Your task to perform on an android device: choose inbox layout in the gmail app Image 0: 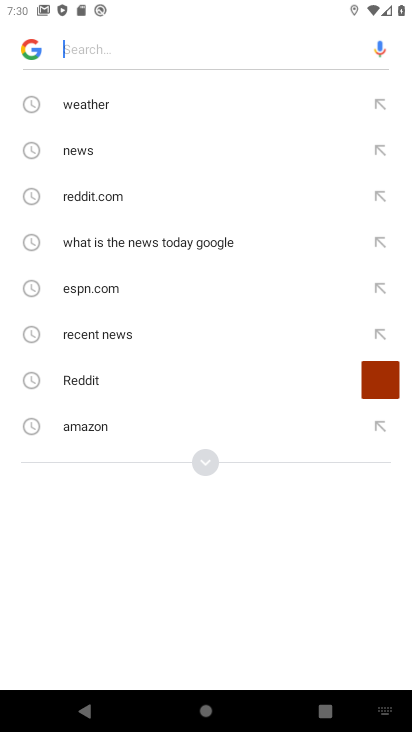
Step 0: press home button
Your task to perform on an android device: choose inbox layout in the gmail app Image 1: 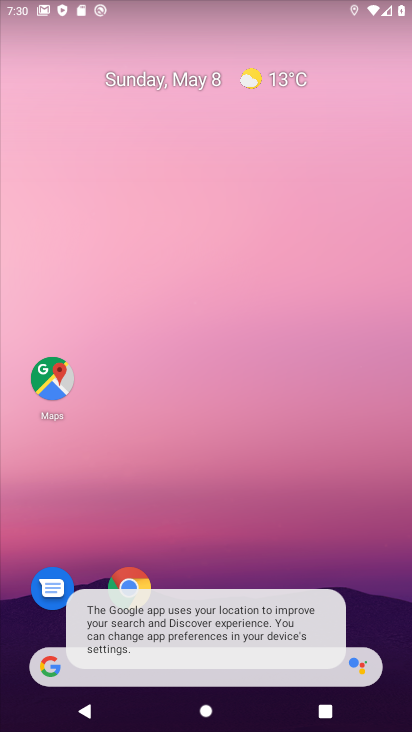
Step 1: drag from (359, 615) to (281, 90)
Your task to perform on an android device: choose inbox layout in the gmail app Image 2: 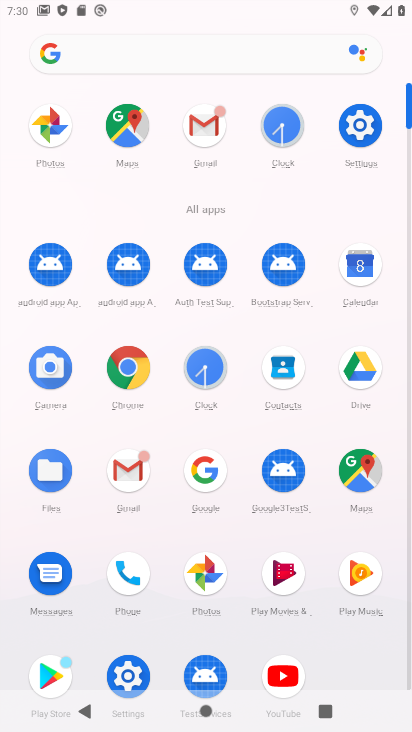
Step 2: click (139, 486)
Your task to perform on an android device: choose inbox layout in the gmail app Image 3: 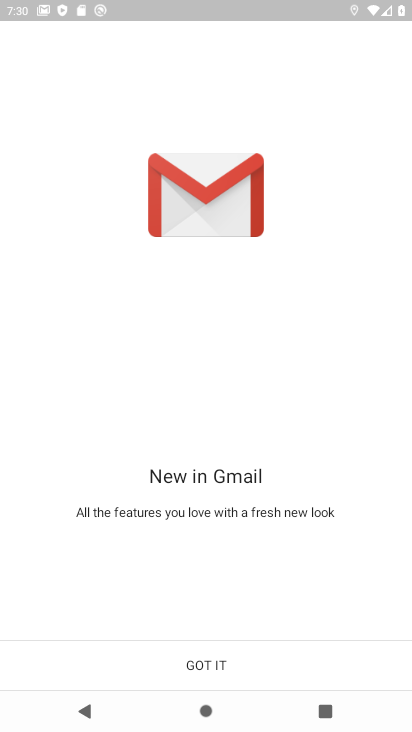
Step 3: click (221, 677)
Your task to perform on an android device: choose inbox layout in the gmail app Image 4: 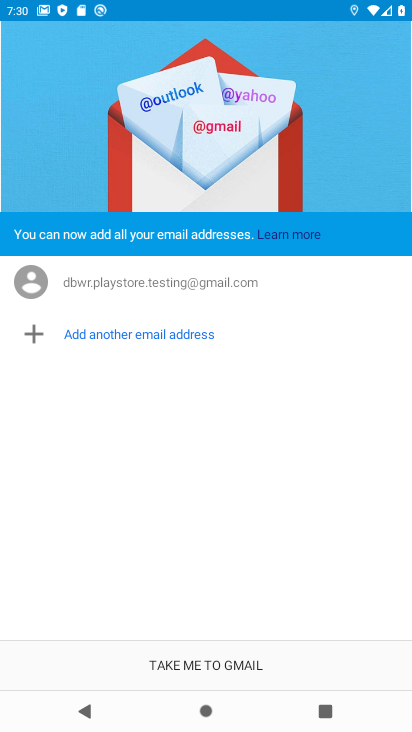
Step 4: click (227, 675)
Your task to perform on an android device: choose inbox layout in the gmail app Image 5: 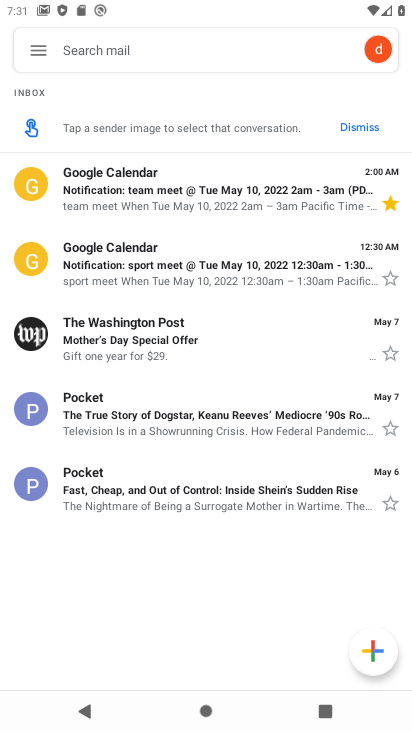
Step 5: task complete